Your task to perform on an android device: turn on bluetooth scan Image 0: 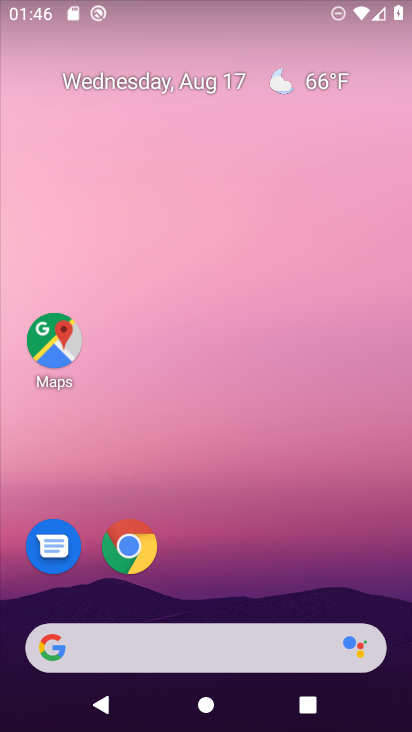
Step 0: drag from (248, 66) to (228, 158)
Your task to perform on an android device: turn on bluetooth scan Image 1: 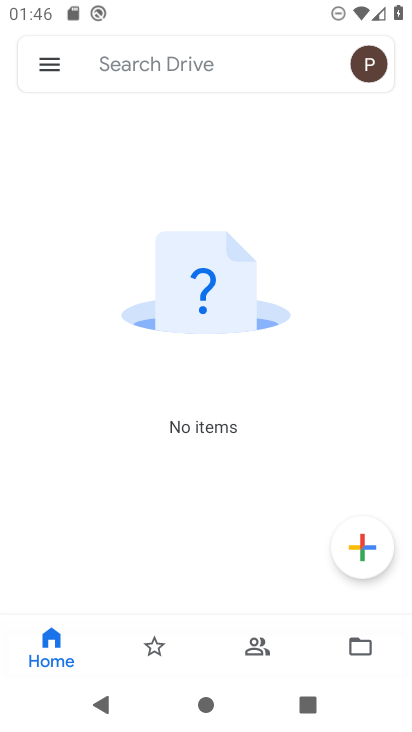
Step 1: press home button
Your task to perform on an android device: turn on bluetooth scan Image 2: 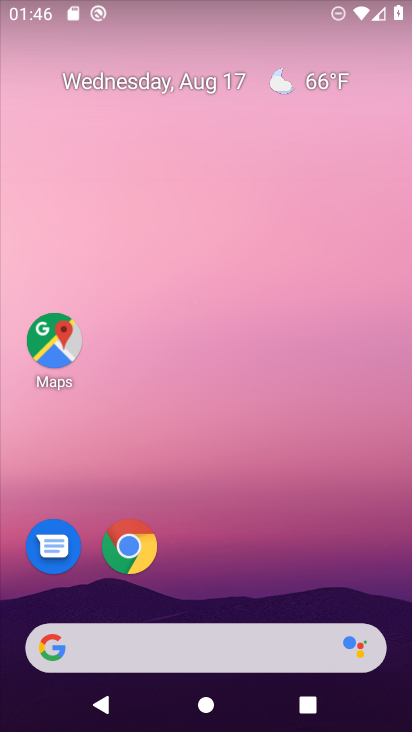
Step 2: drag from (218, 583) to (202, 118)
Your task to perform on an android device: turn on bluetooth scan Image 3: 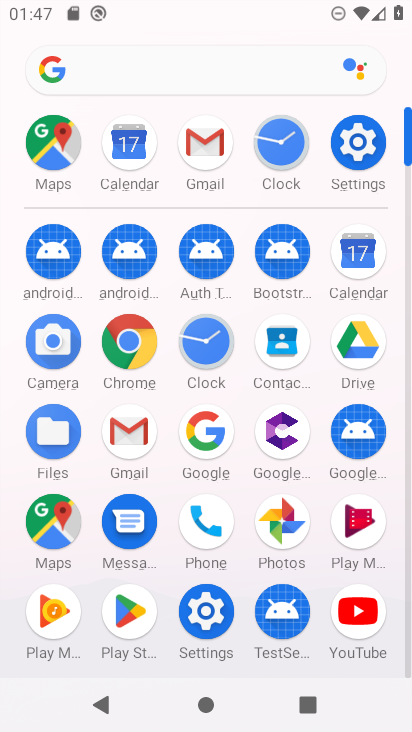
Step 3: click (352, 139)
Your task to perform on an android device: turn on bluetooth scan Image 4: 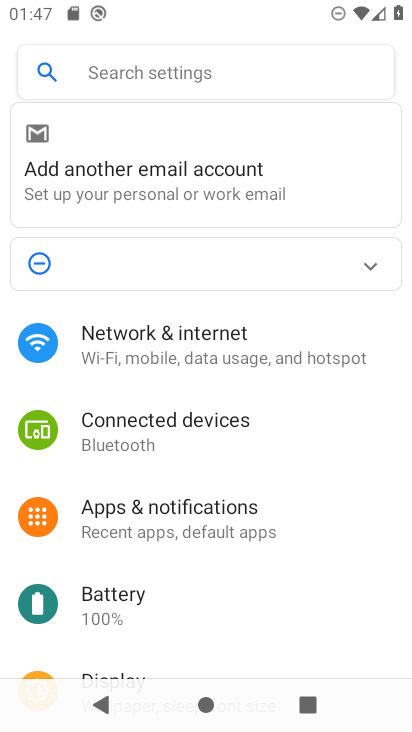
Step 4: drag from (227, 619) to (273, 247)
Your task to perform on an android device: turn on bluetooth scan Image 5: 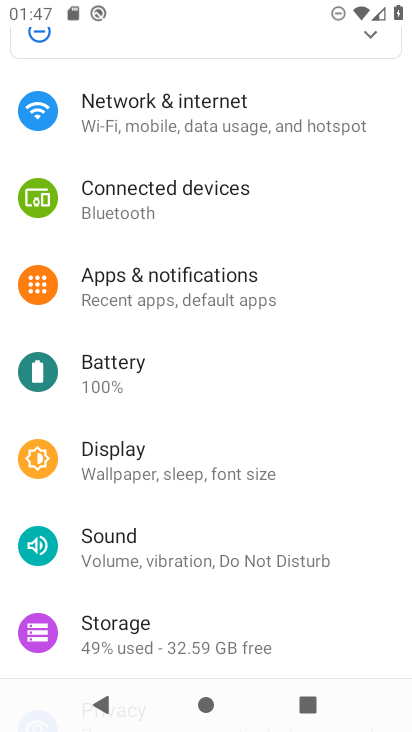
Step 5: drag from (235, 599) to (248, 167)
Your task to perform on an android device: turn on bluetooth scan Image 6: 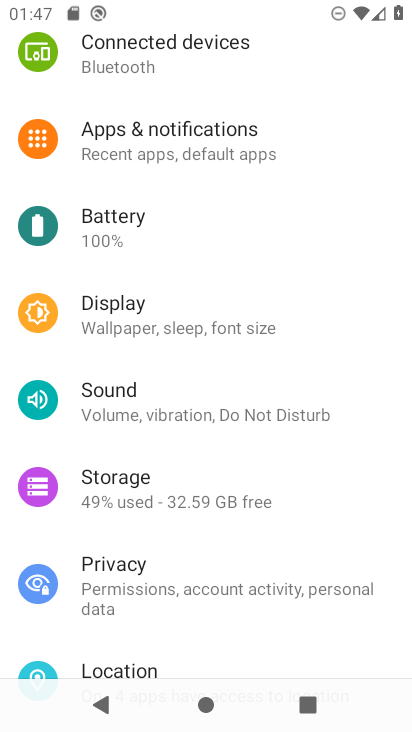
Step 6: drag from (236, 530) to (272, 331)
Your task to perform on an android device: turn on bluetooth scan Image 7: 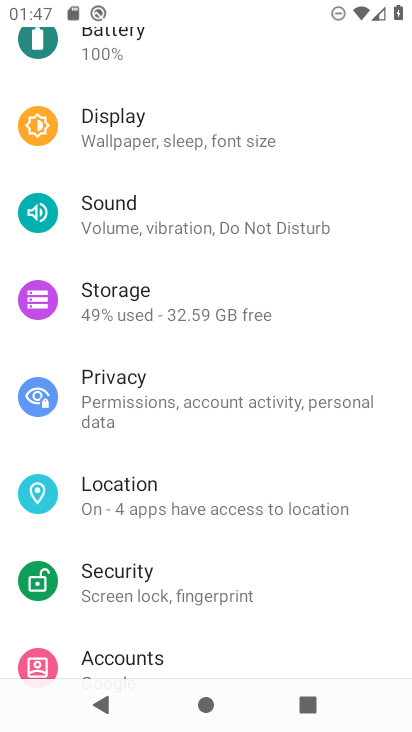
Step 7: click (121, 485)
Your task to perform on an android device: turn on bluetooth scan Image 8: 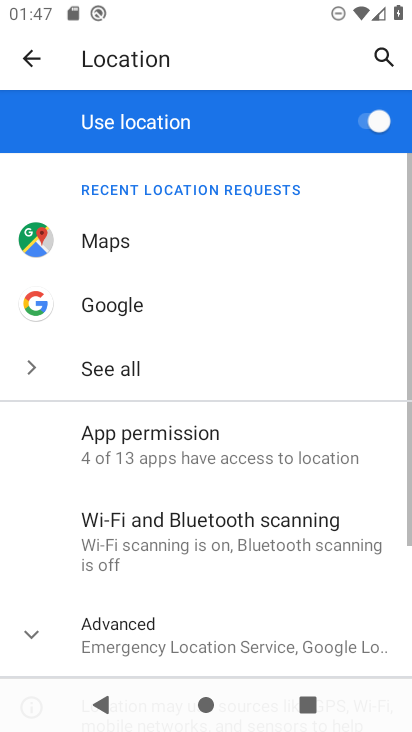
Step 8: drag from (229, 485) to (236, 355)
Your task to perform on an android device: turn on bluetooth scan Image 9: 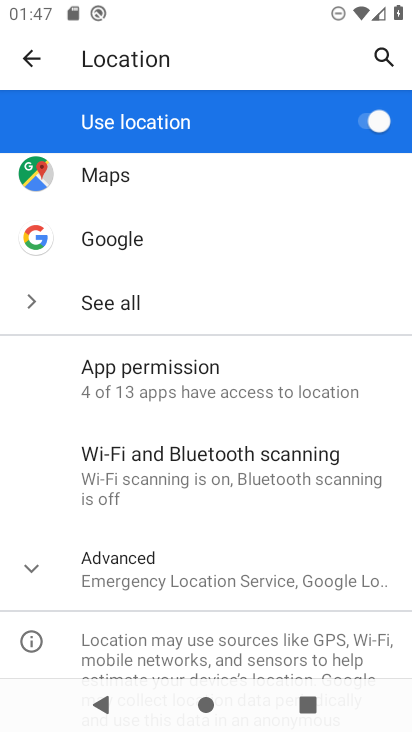
Step 9: click (43, 568)
Your task to perform on an android device: turn on bluetooth scan Image 10: 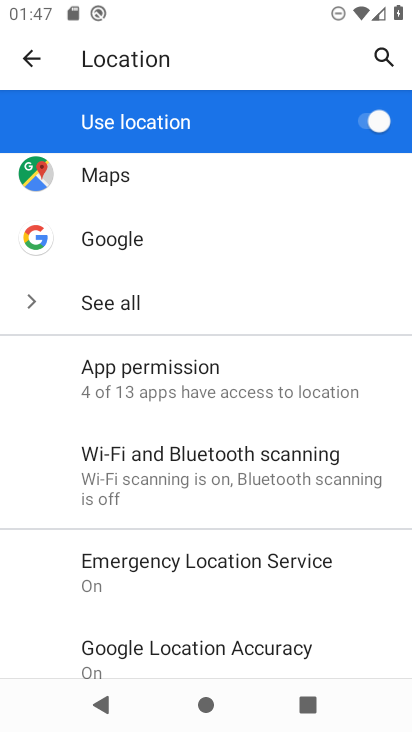
Step 10: drag from (278, 610) to (278, 400)
Your task to perform on an android device: turn on bluetooth scan Image 11: 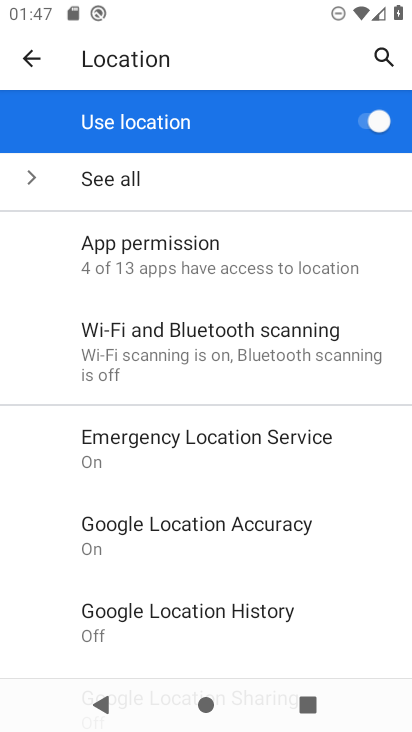
Step 11: click (207, 323)
Your task to perform on an android device: turn on bluetooth scan Image 12: 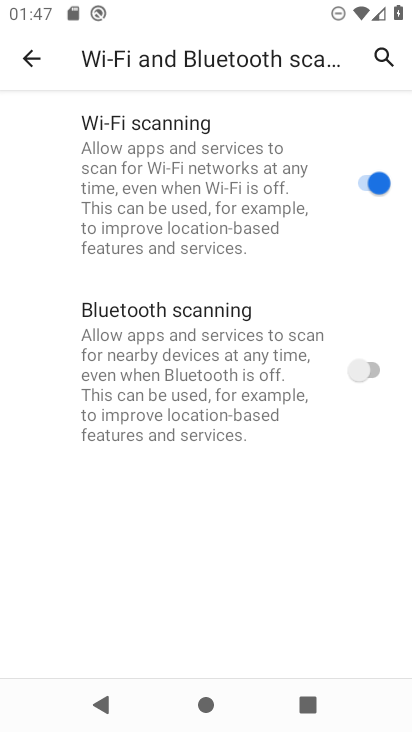
Step 12: click (352, 376)
Your task to perform on an android device: turn on bluetooth scan Image 13: 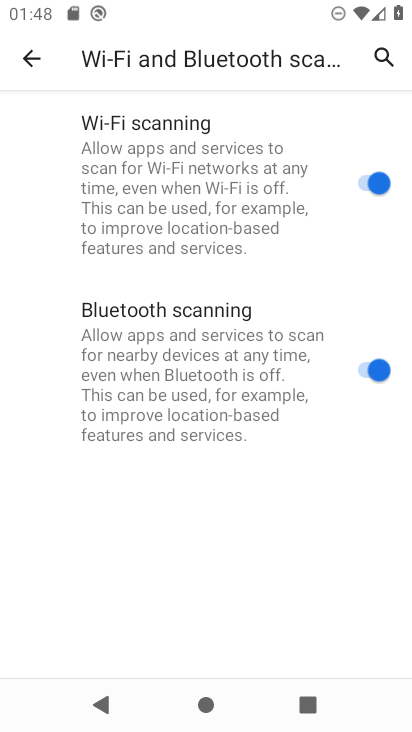
Step 13: task complete